Your task to perform on an android device: turn off picture-in-picture Image 0: 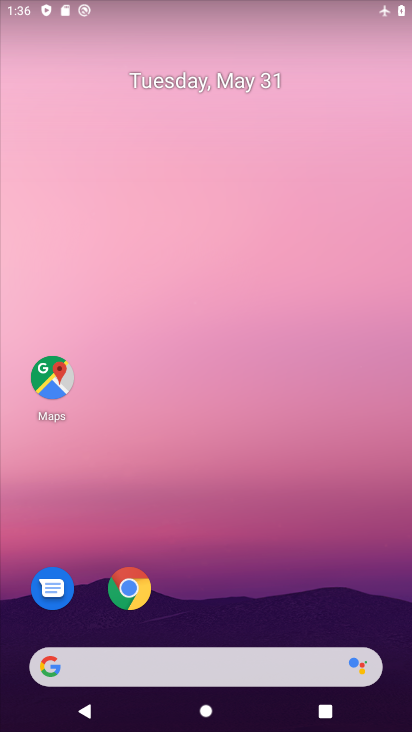
Step 0: drag from (270, 600) to (211, 48)
Your task to perform on an android device: turn off picture-in-picture Image 1: 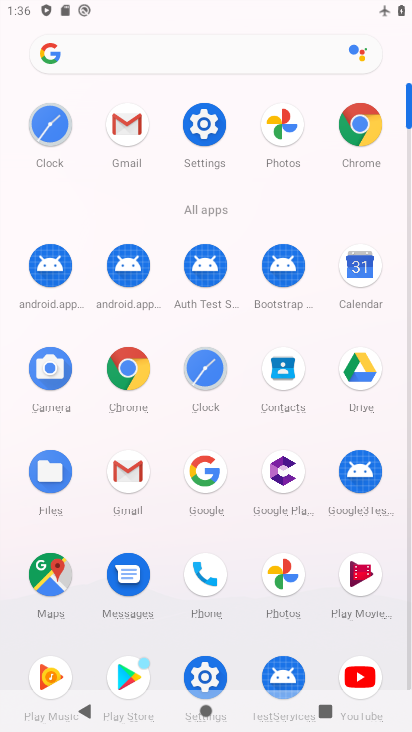
Step 1: click (363, 145)
Your task to perform on an android device: turn off picture-in-picture Image 2: 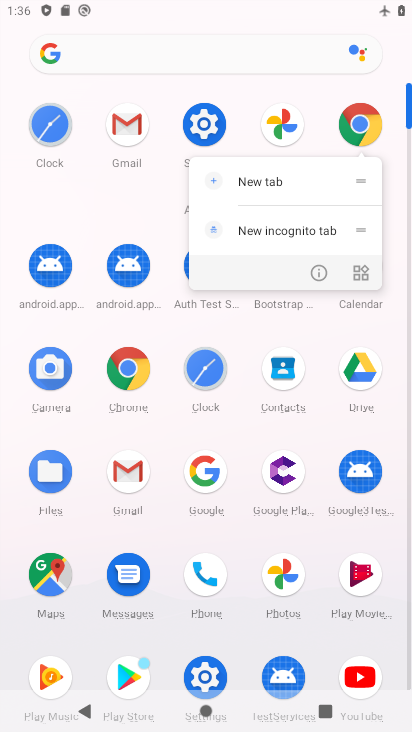
Step 2: click (320, 272)
Your task to perform on an android device: turn off picture-in-picture Image 3: 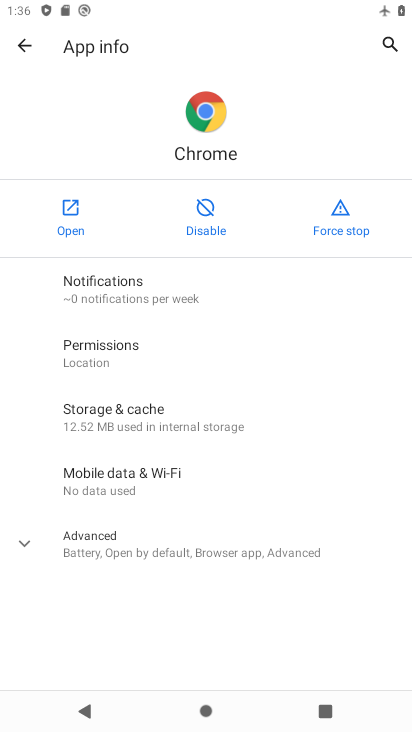
Step 3: click (232, 549)
Your task to perform on an android device: turn off picture-in-picture Image 4: 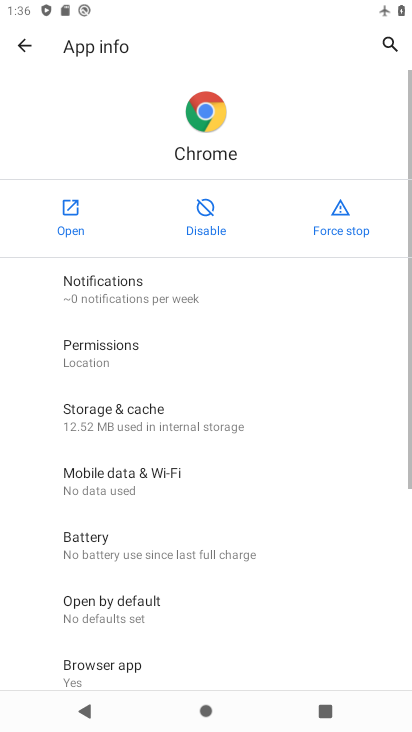
Step 4: drag from (232, 549) to (185, 263)
Your task to perform on an android device: turn off picture-in-picture Image 5: 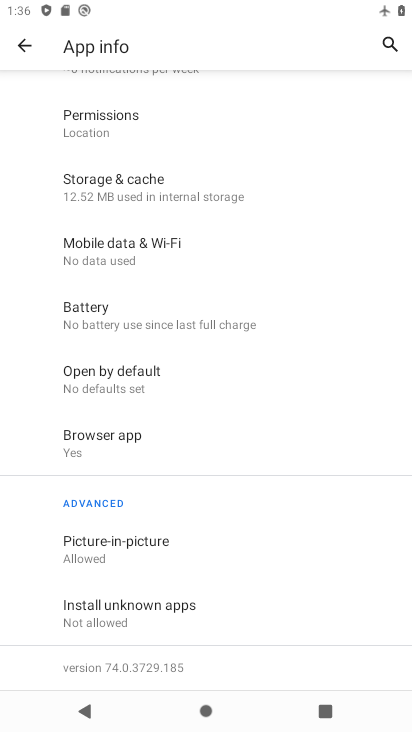
Step 5: drag from (222, 581) to (184, 253)
Your task to perform on an android device: turn off picture-in-picture Image 6: 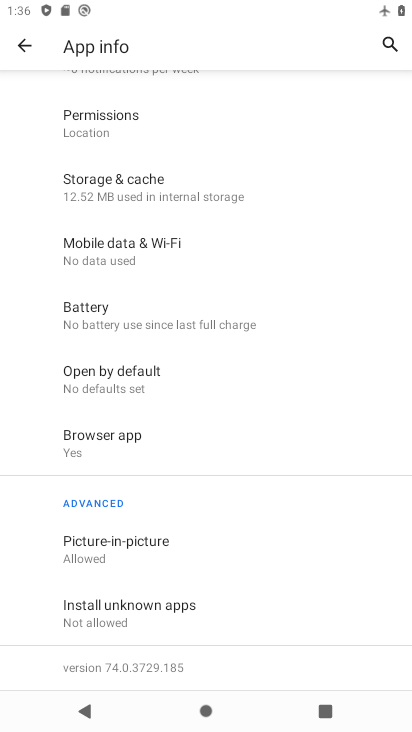
Step 6: click (204, 546)
Your task to perform on an android device: turn off picture-in-picture Image 7: 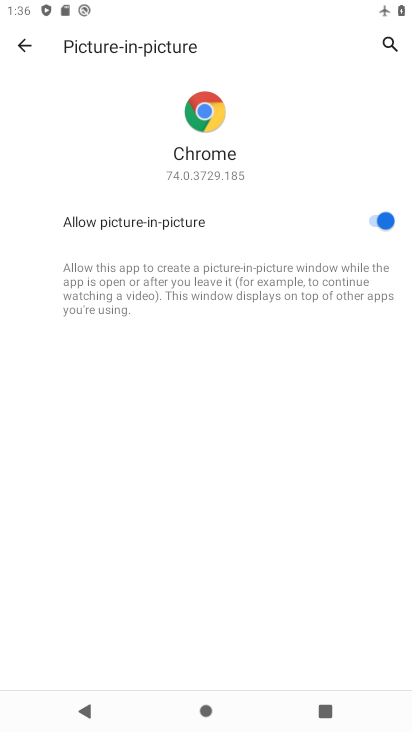
Step 7: click (378, 233)
Your task to perform on an android device: turn off picture-in-picture Image 8: 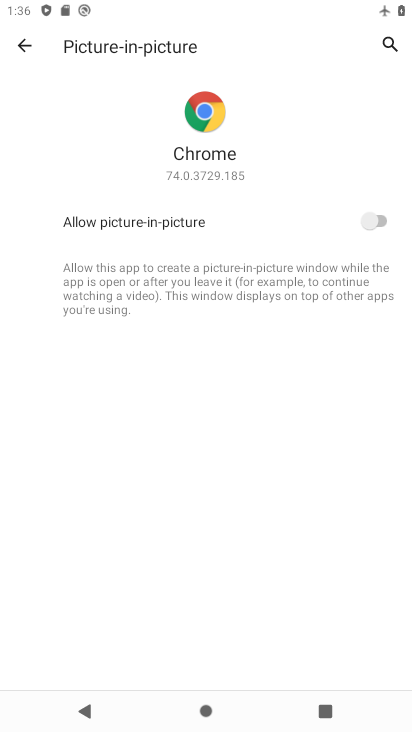
Step 8: task complete